Your task to perform on an android device: What's on my calendar tomorrow? Image 0: 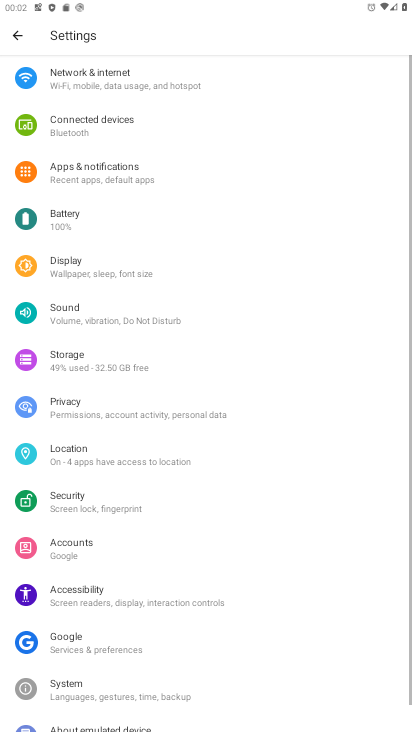
Step 0: press home button
Your task to perform on an android device: What's on my calendar tomorrow? Image 1: 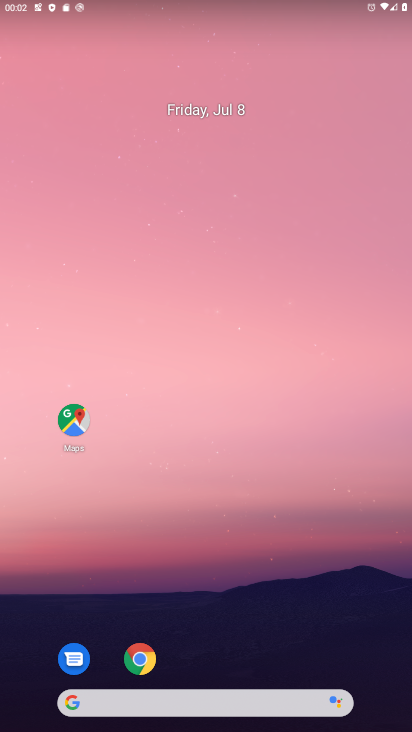
Step 1: click (187, 102)
Your task to perform on an android device: What's on my calendar tomorrow? Image 2: 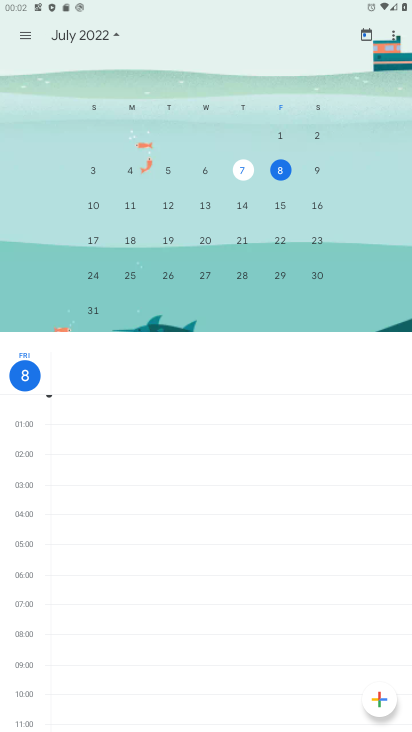
Step 2: click (313, 166)
Your task to perform on an android device: What's on my calendar tomorrow? Image 3: 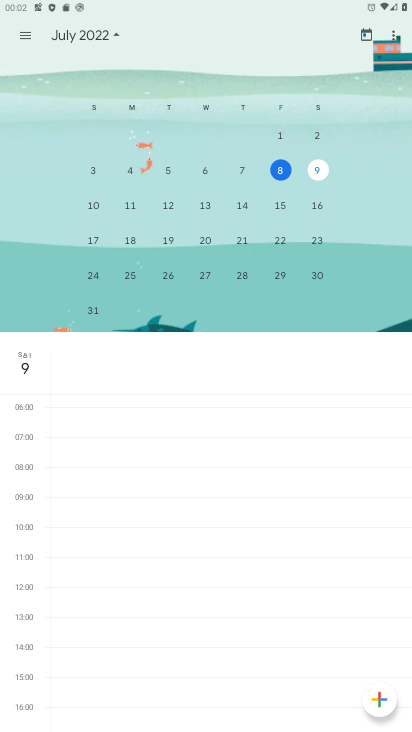
Step 3: task complete